Your task to perform on an android device: Open Google Image 0: 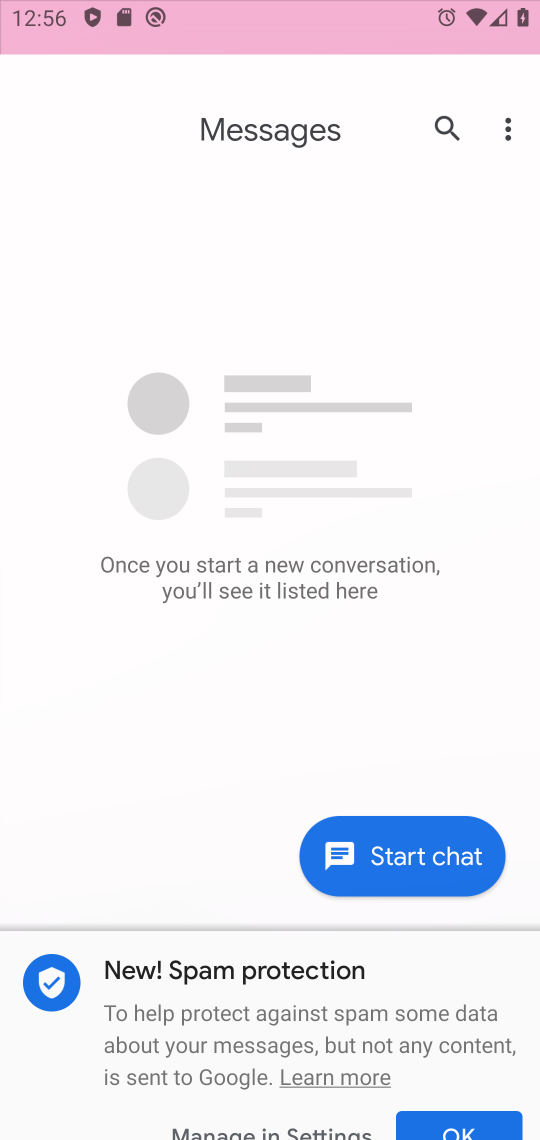
Step 0: click (174, 79)
Your task to perform on an android device: Open Google Image 1: 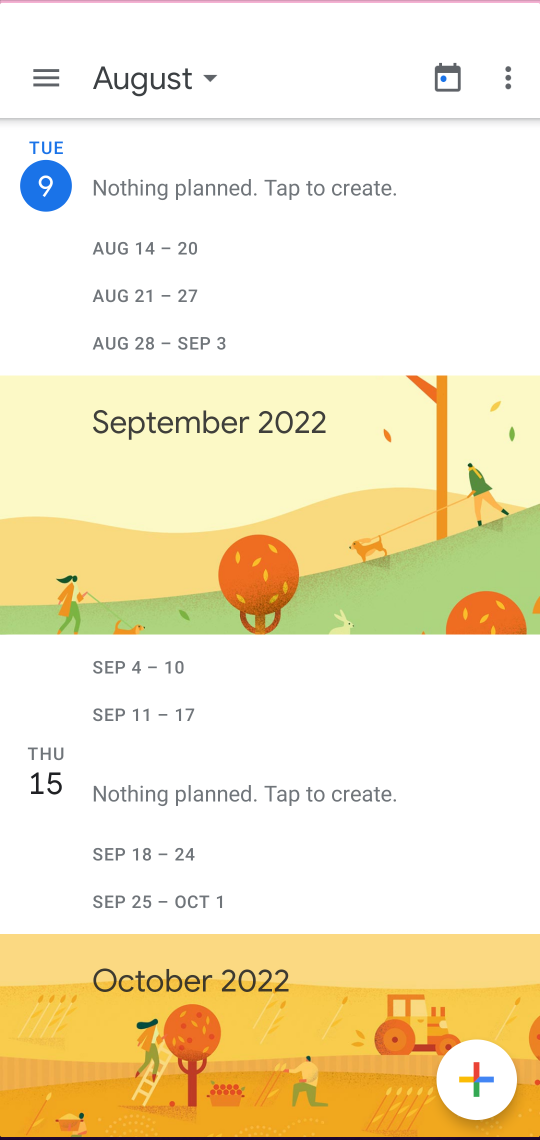
Step 1: drag from (258, 554) to (320, 87)
Your task to perform on an android device: Open Google Image 2: 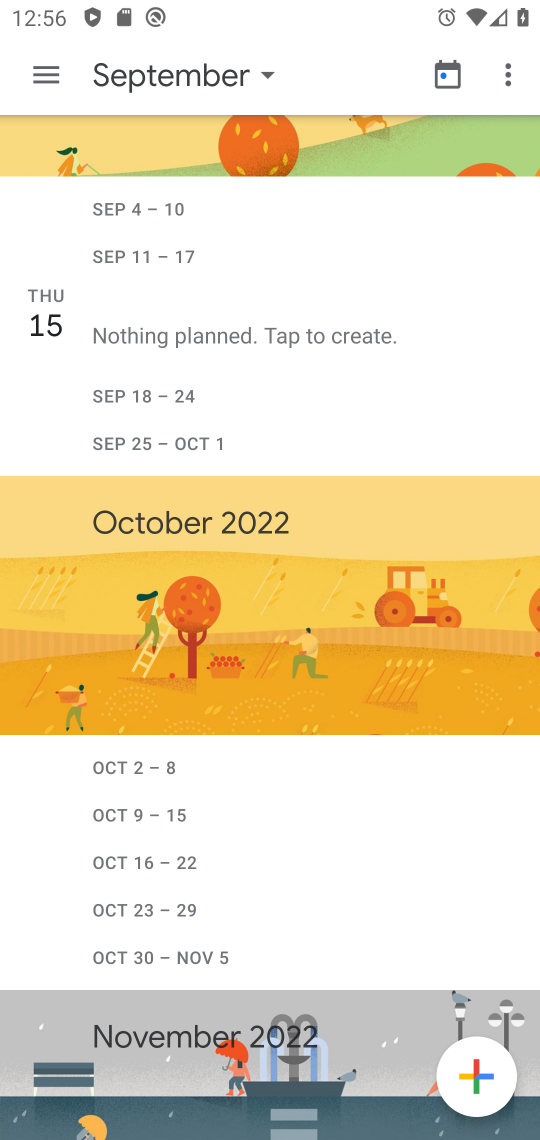
Step 2: press home button
Your task to perform on an android device: Open Google Image 3: 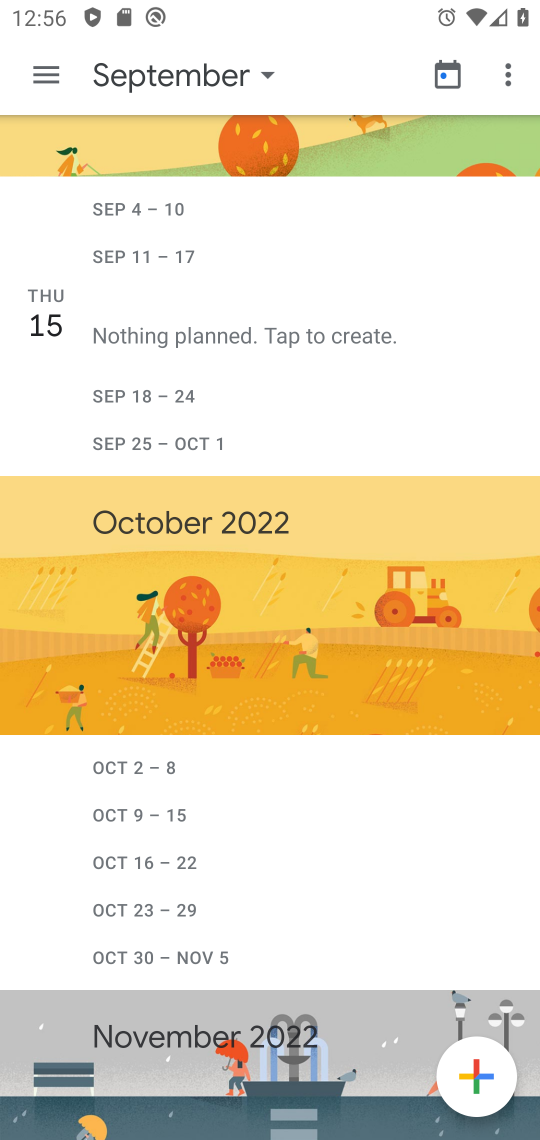
Step 3: drag from (260, 868) to (252, 72)
Your task to perform on an android device: Open Google Image 4: 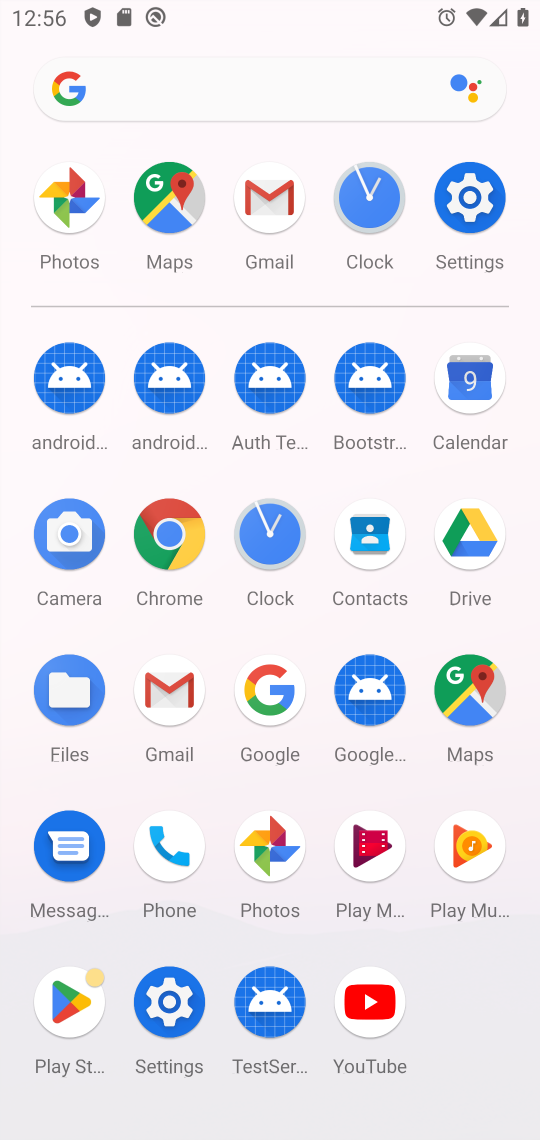
Step 4: click (267, 685)
Your task to perform on an android device: Open Google Image 5: 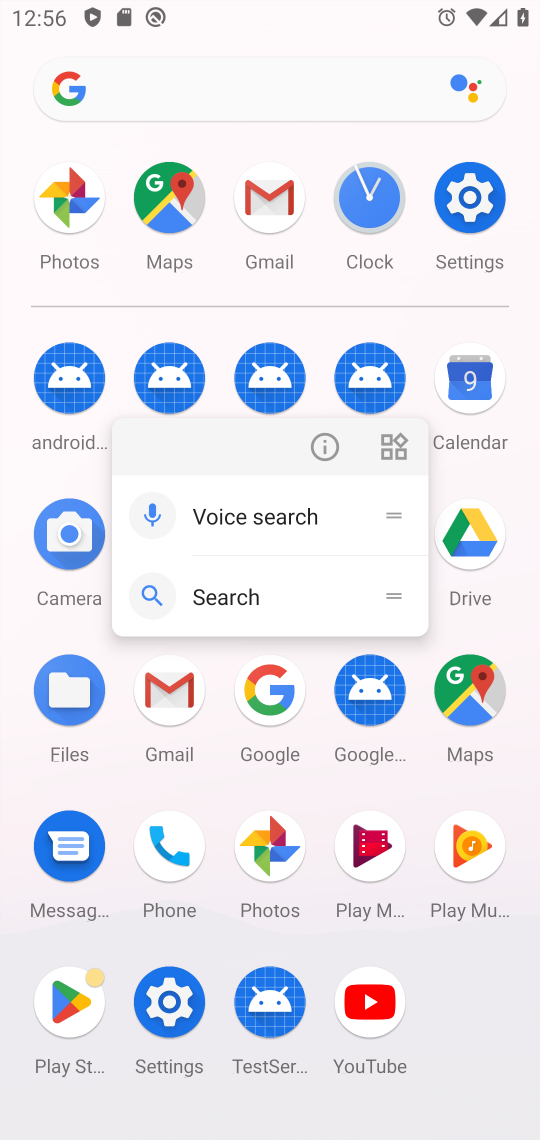
Step 5: click (322, 435)
Your task to perform on an android device: Open Google Image 6: 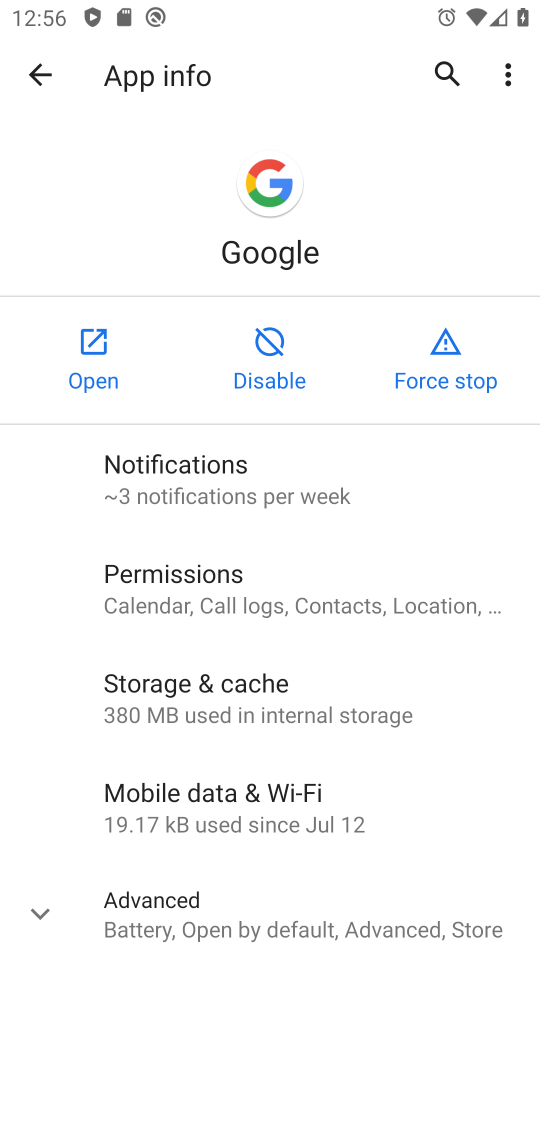
Step 6: click (82, 326)
Your task to perform on an android device: Open Google Image 7: 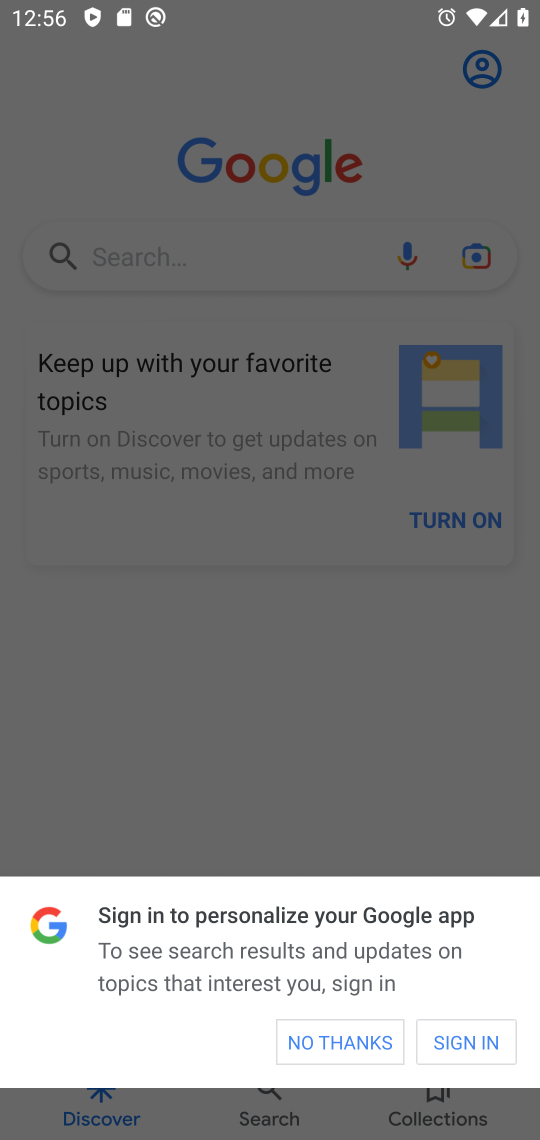
Step 7: drag from (366, 911) to (388, 445)
Your task to perform on an android device: Open Google Image 8: 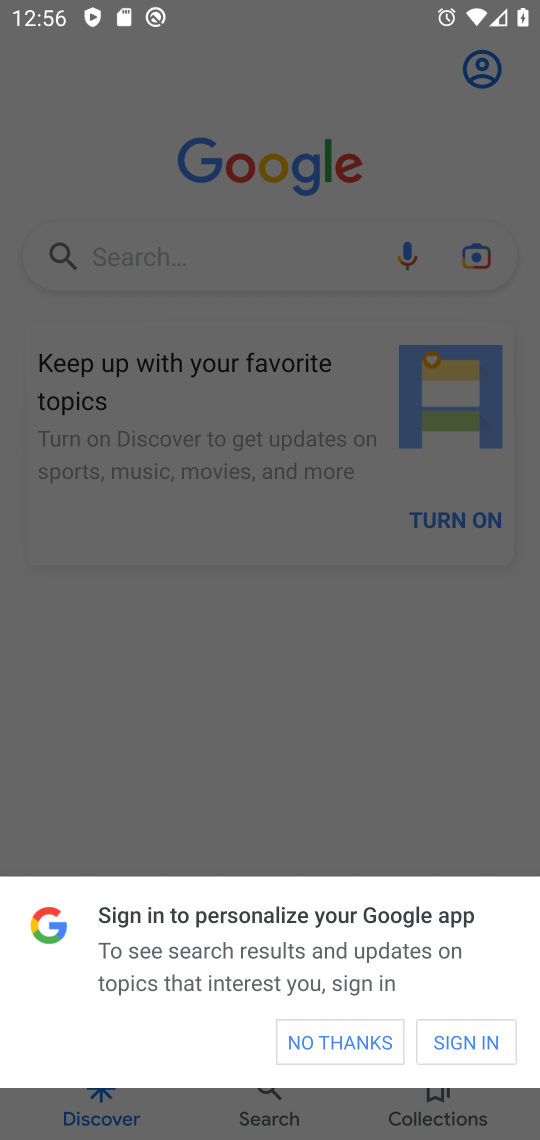
Step 8: click (320, 1039)
Your task to perform on an android device: Open Google Image 9: 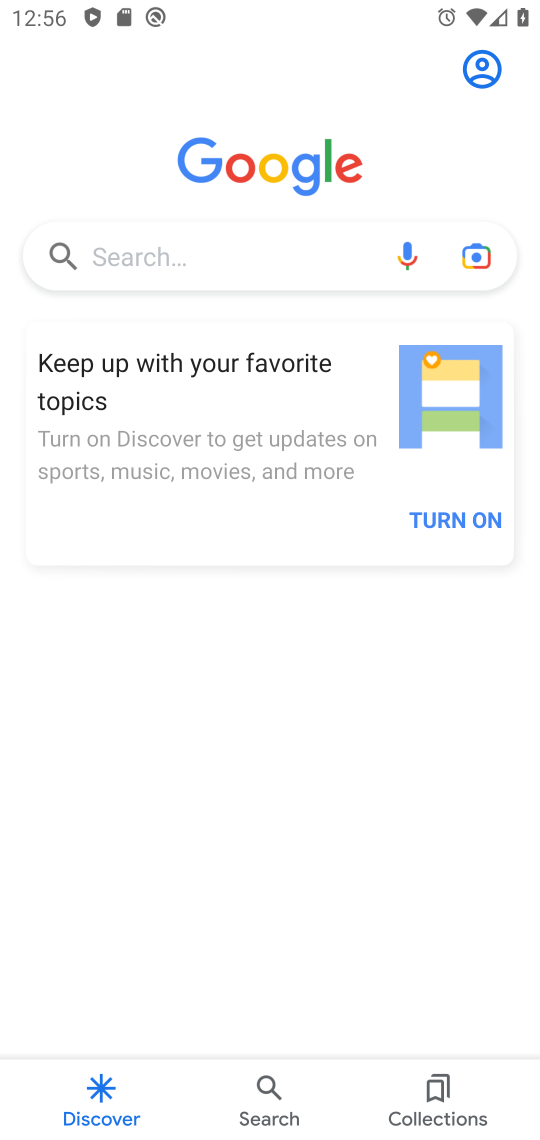
Step 9: click (407, 442)
Your task to perform on an android device: Open Google Image 10: 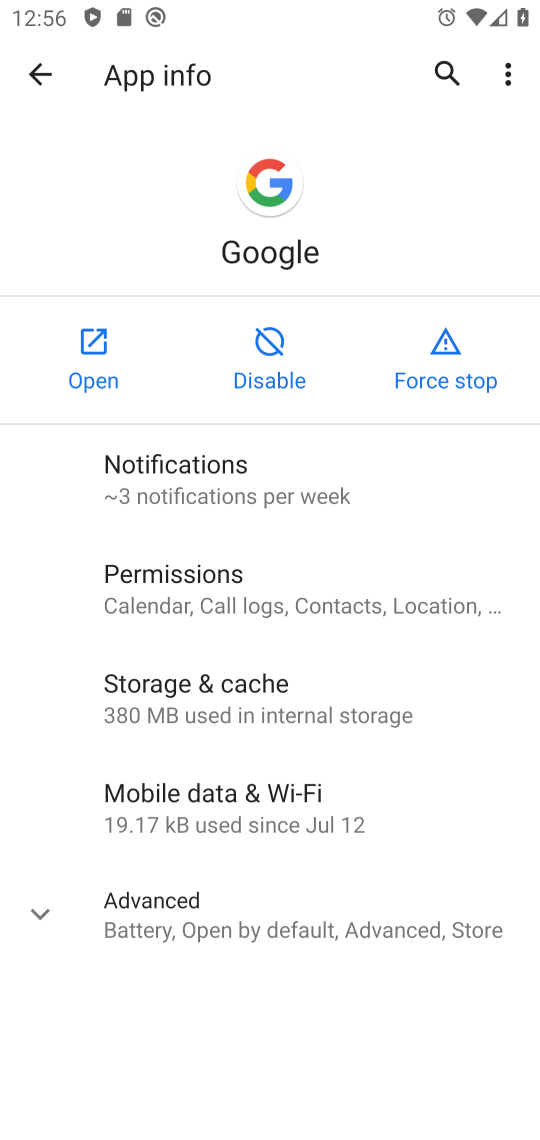
Step 10: task complete